Your task to perform on an android device: Search for pizza restaurants on Maps Image 0: 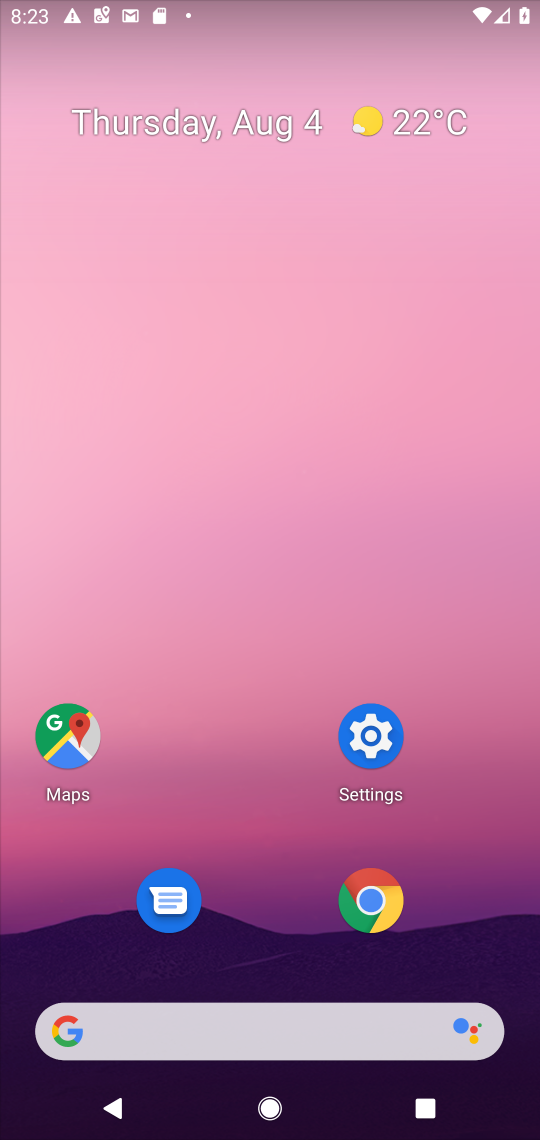
Step 0: click (63, 741)
Your task to perform on an android device: Search for pizza restaurants on Maps Image 1: 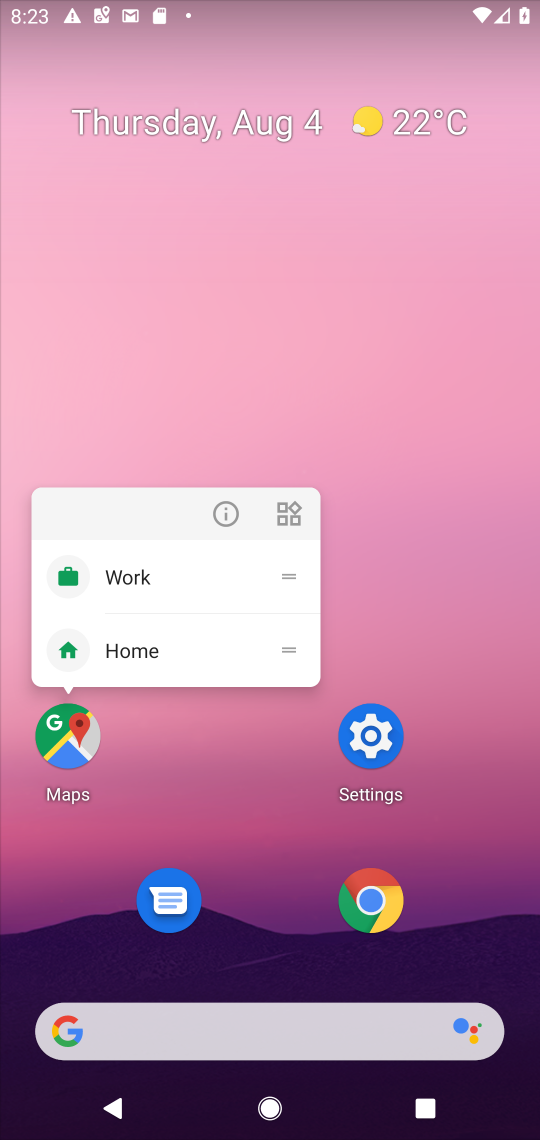
Step 1: click (66, 736)
Your task to perform on an android device: Search for pizza restaurants on Maps Image 2: 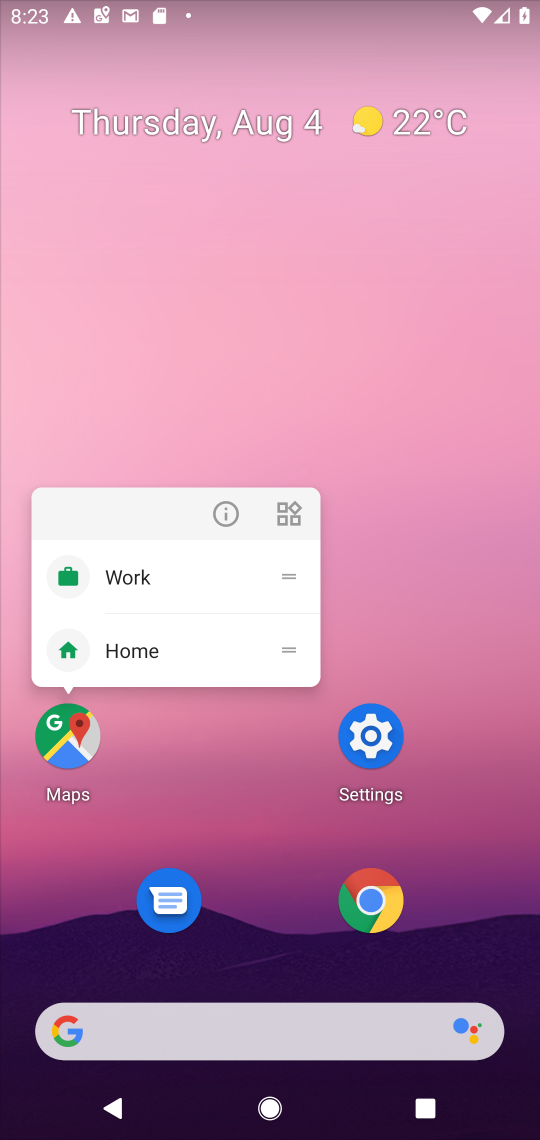
Step 2: click (67, 734)
Your task to perform on an android device: Search for pizza restaurants on Maps Image 3: 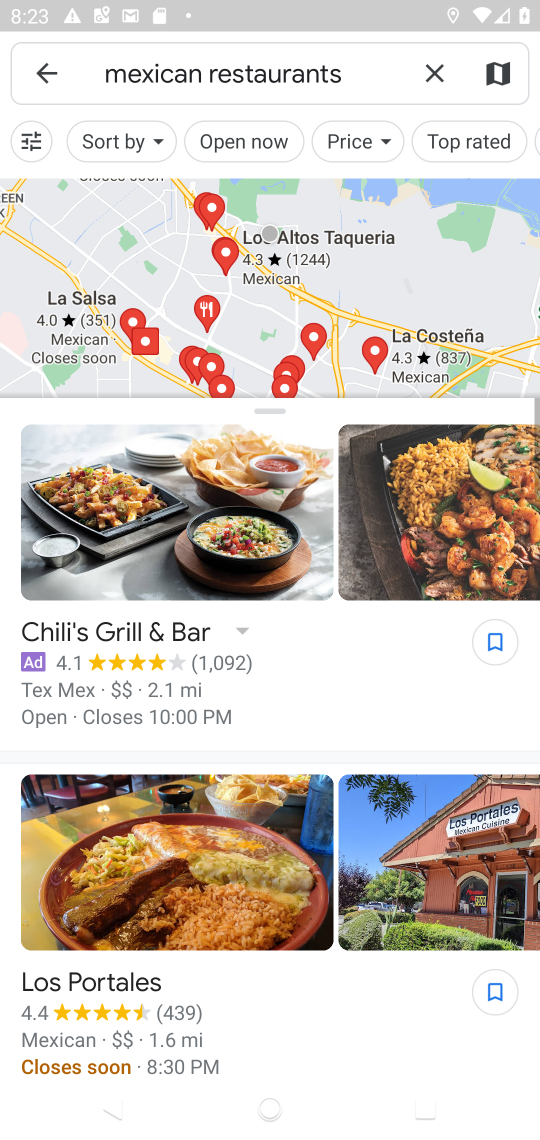
Step 3: click (439, 61)
Your task to perform on an android device: Search for pizza restaurants on Maps Image 4: 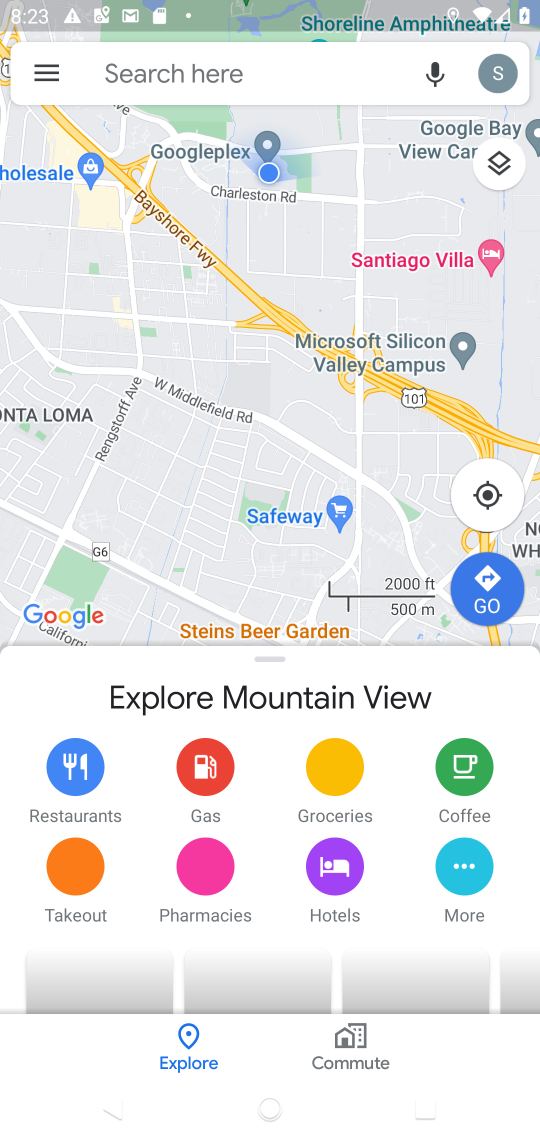
Step 4: click (215, 71)
Your task to perform on an android device: Search for pizza restaurants on Maps Image 5: 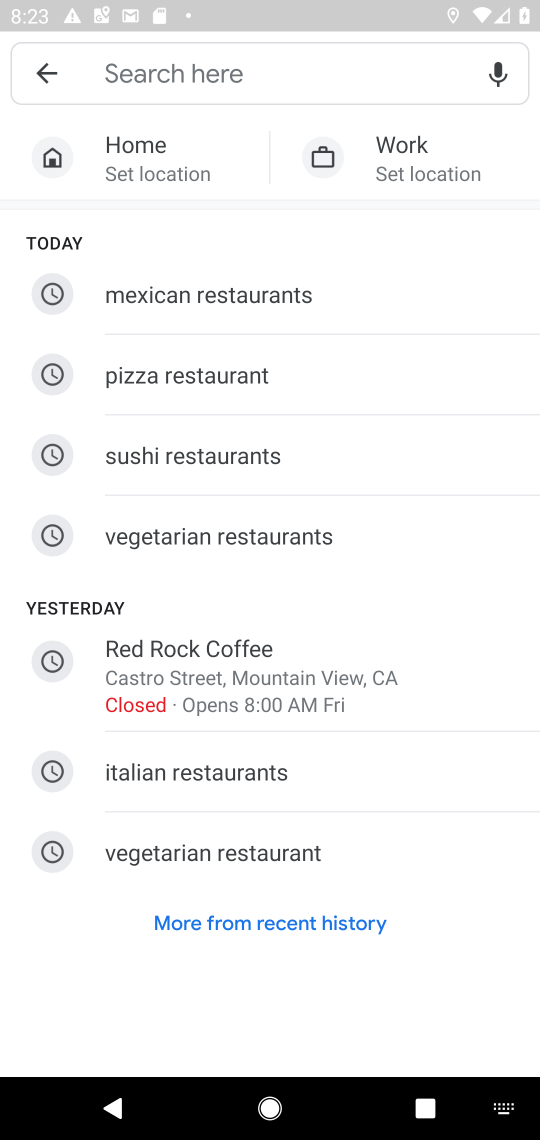
Step 5: click (185, 371)
Your task to perform on an android device: Search for pizza restaurants on Maps Image 6: 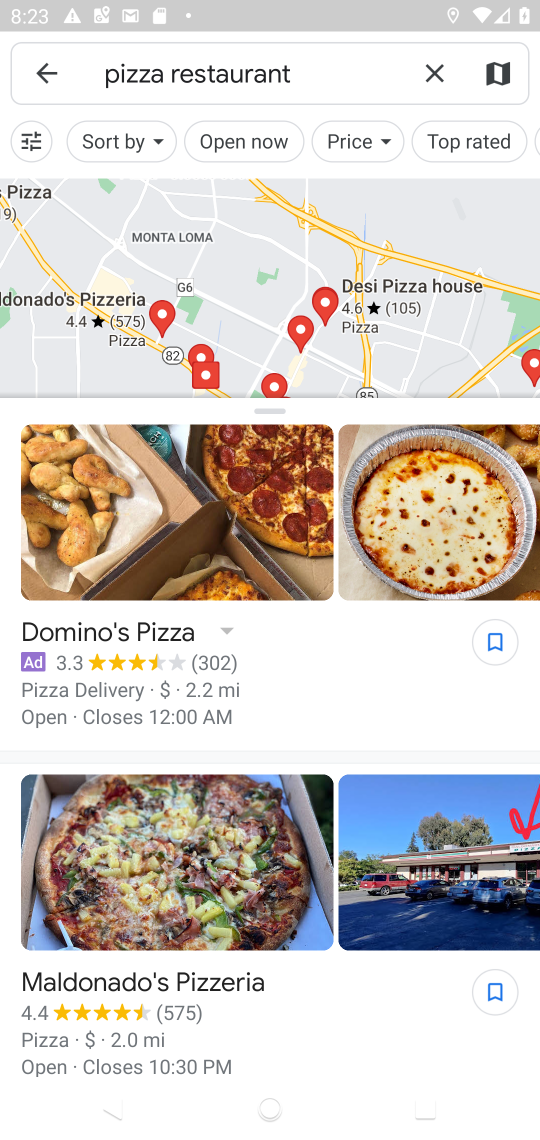
Step 6: task complete